Your task to perform on an android device: Open sound settings Image 0: 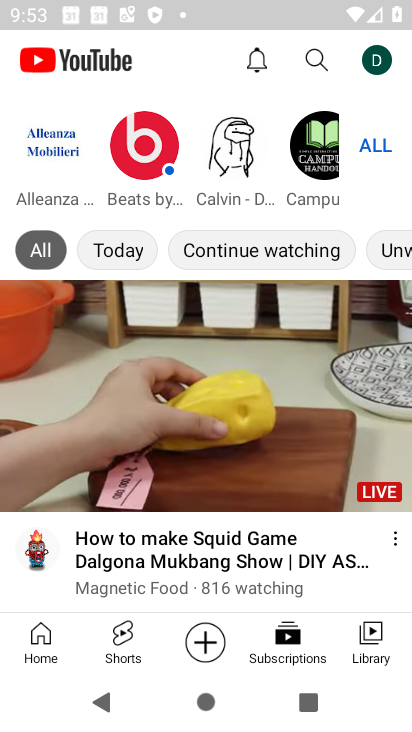
Step 0: press home button
Your task to perform on an android device: Open sound settings Image 1: 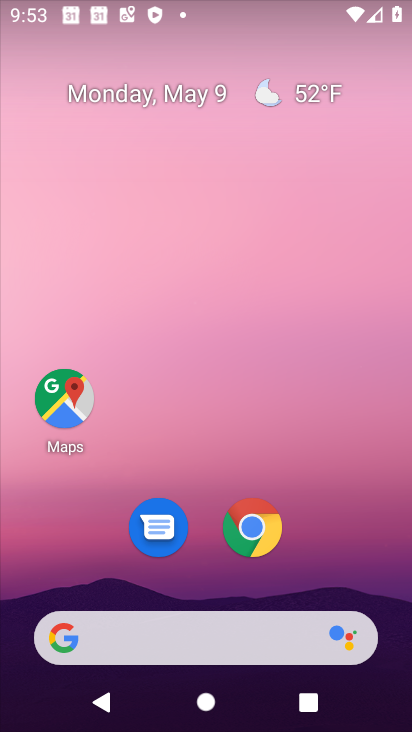
Step 1: drag from (210, 553) to (239, 15)
Your task to perform on an android device: Open sound settings Image 2: 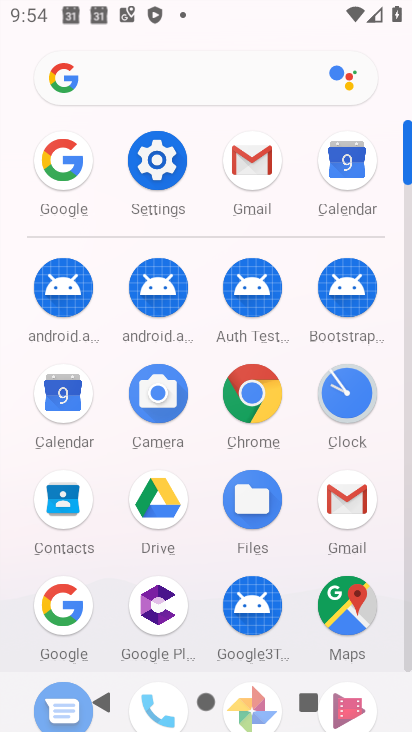
Step 2: click (154, 149)
Your task to perform on an android device: Open sound settings Image 3: 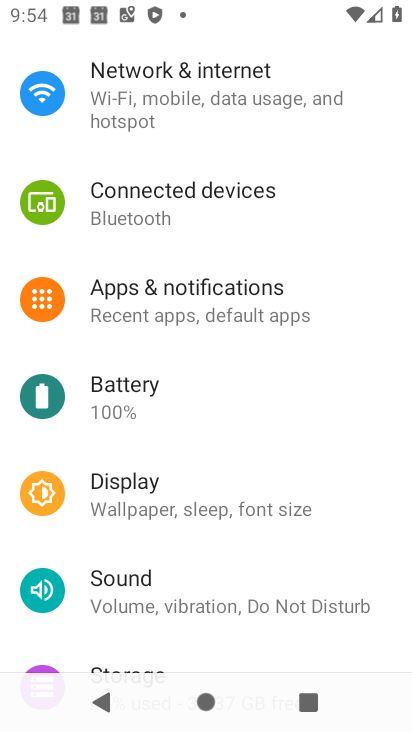
Step 3: drag from (227, 604) to (225, 390)
Your task to perform on an android device: Open sound settings Image 4: 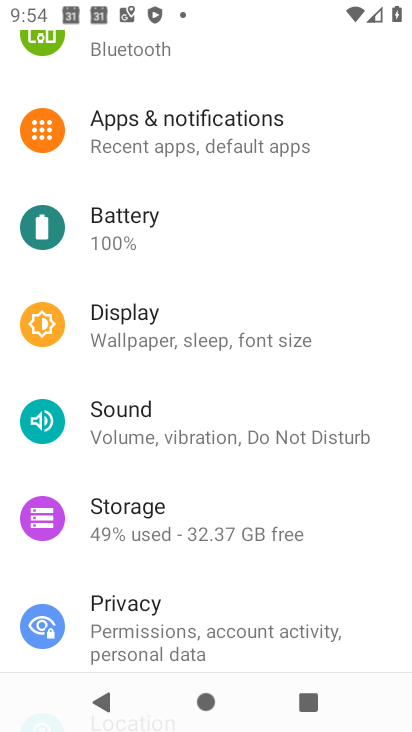
Step 4: click (124, 412)
Your task to perform on an android device: Open sound settings Image 5: 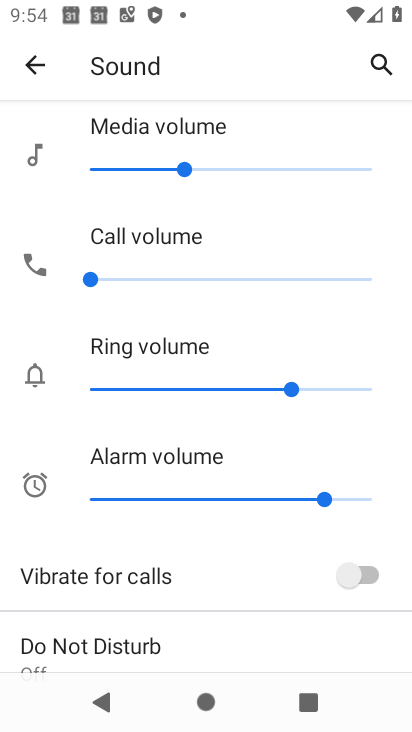
Step 5: task complete